Your task to perform on an android device: turn off priority inbox in the gmail app Image 0: 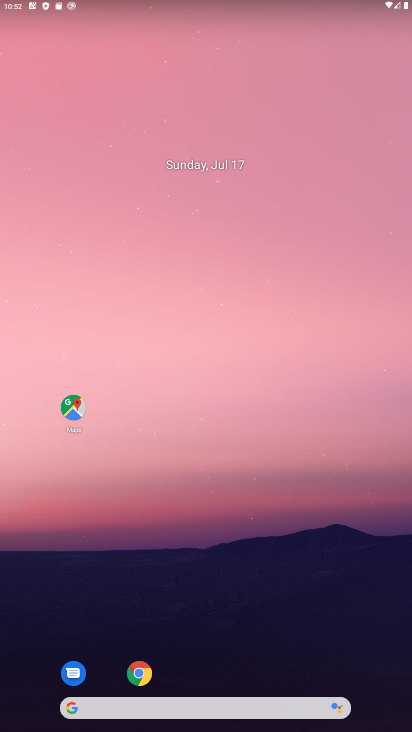
Step 0: drag from (220, 655) to (210, 141)
Your task to perform on an android device: turn off priority inbox in the gmail app Image 1: 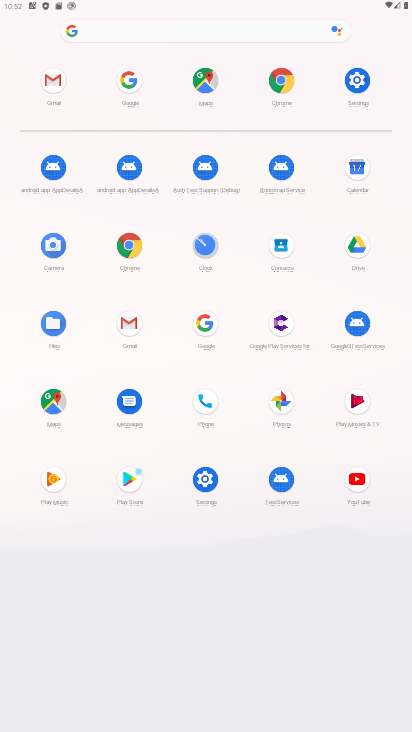
Step 1: click (136, 324)
Your task to perform on an android device: turn off priority inbox in the gmail app Image 2: 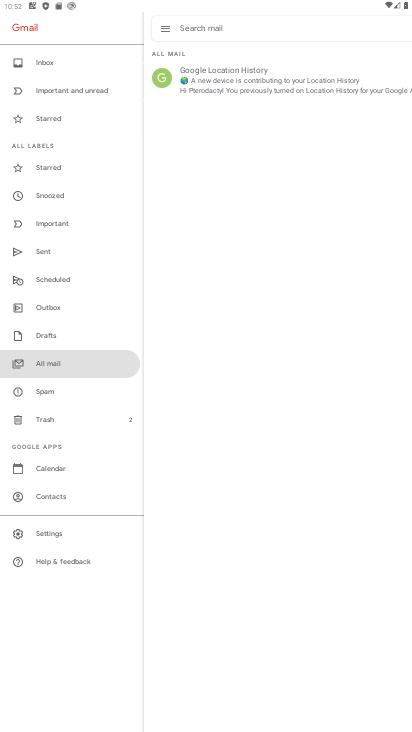
Step 2: click (63, 534)
Your task to perform on an android device: turn off priority inbox in the gmail app Image 3: 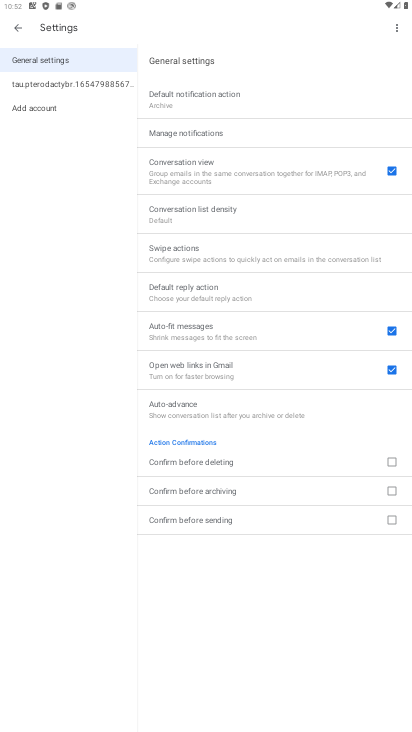
Step 3: click (83, 80)
Your task to perform on an android device: turn off priority inbox in the gmail app Image 4: 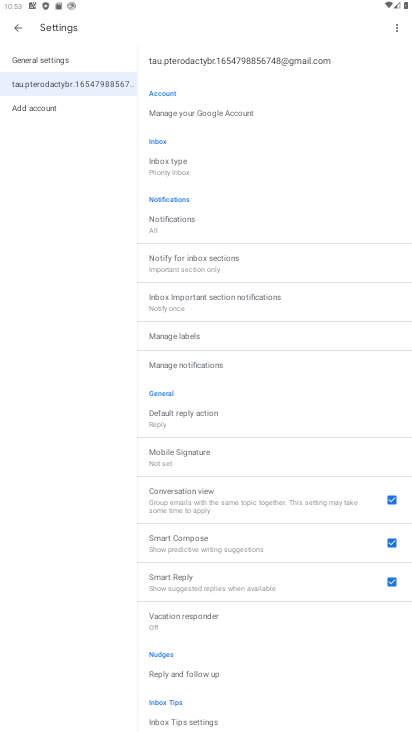
Step 4: click (184, 160)
Your task to perform on an android device: turn off priority inbox in the gmail app Image 5: 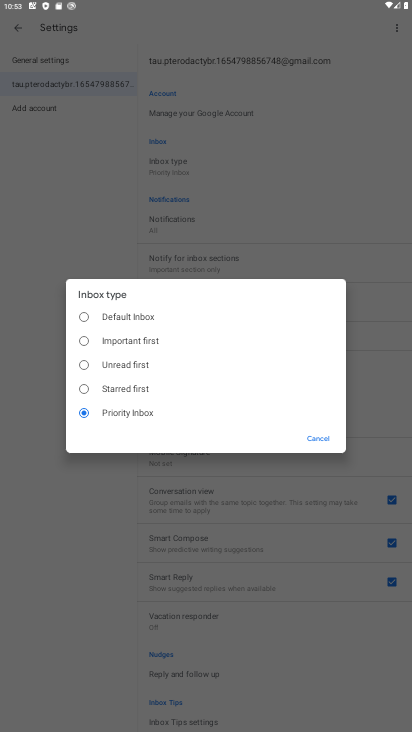
Step 5: click (86, 315)
Your task to perform on an android device: turn off priority inbox in the gmail app Image 6: 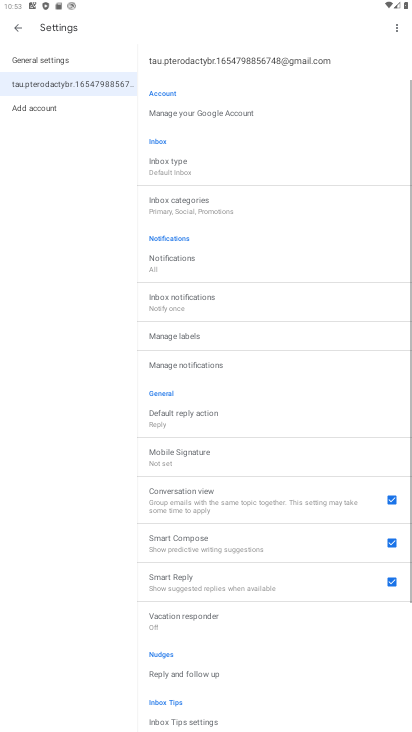
Step 6: task complete